Your task to perform on an android device: turn off priority inbox in the gmail app Image 0: 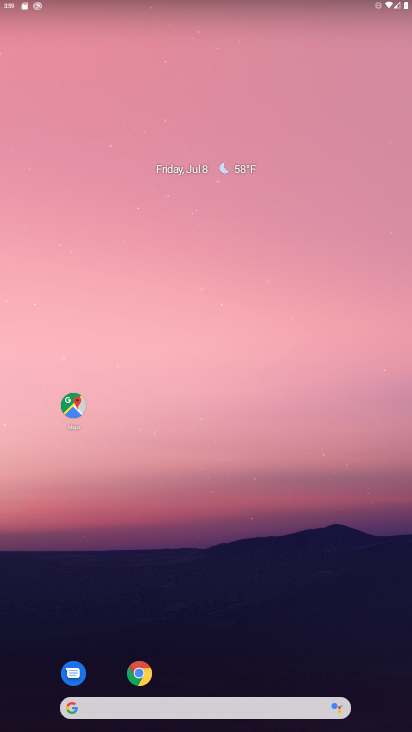
Step 0: drag from (155, 691) to (203, 429)
Your task to perform on an android device: turn off priority inbox in the gmail app Image 1: 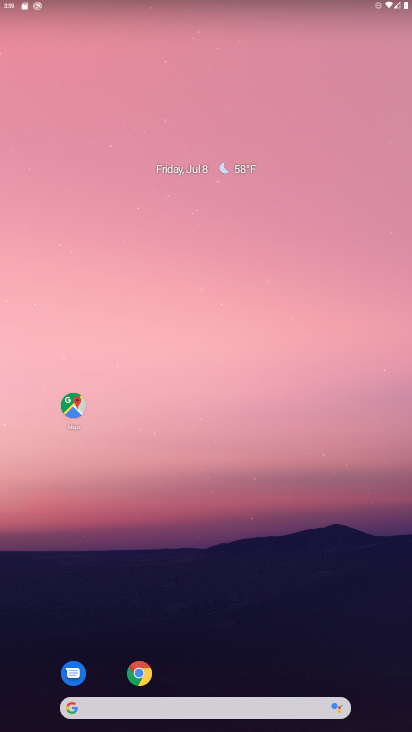
Step 1: drag from (196, 696) to (222, 248)
Your task to perform on an android device: turn off priority inbox in the gmail app Image 2: 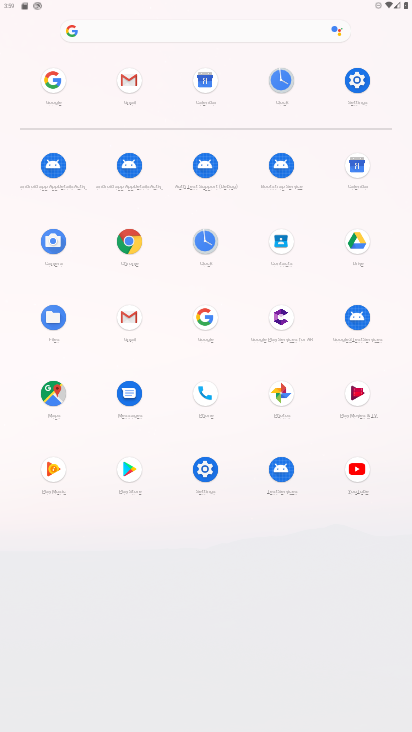
Step 2: click (129, 81)
Your task to perform on an android device: turn off priority inbox in the gmail app Image 3: 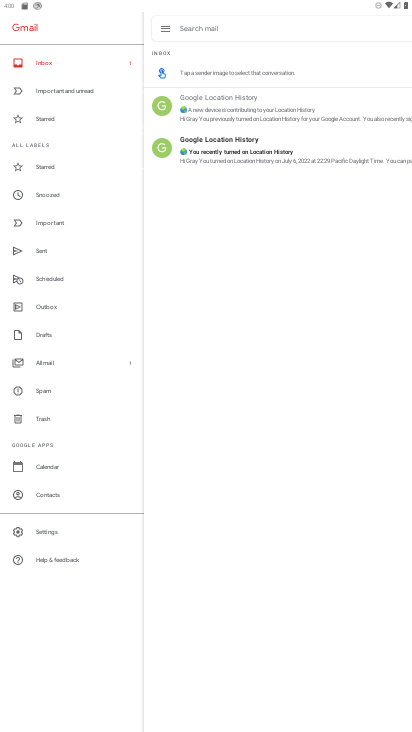
Step 3: click (52, 531)
Your task to perform on an android device: turn off priority inbox in the gmail app Image 4: 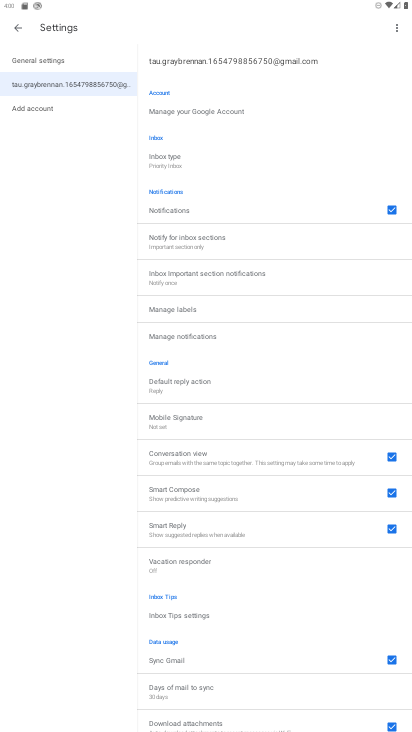
Step 4: click (161, 159)
Your task to perform on an android device: turn off priority inbox in the gmail app Image 5: 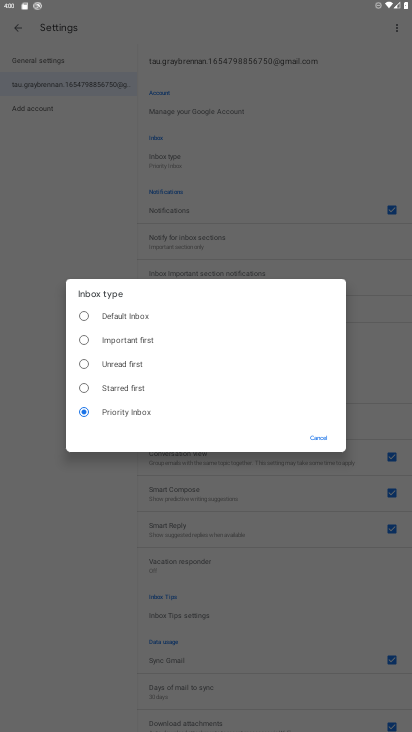
Step 5: click (118, 317)
Your task to perform on an android device: turn off priority inbox in the gmail app Image 6: 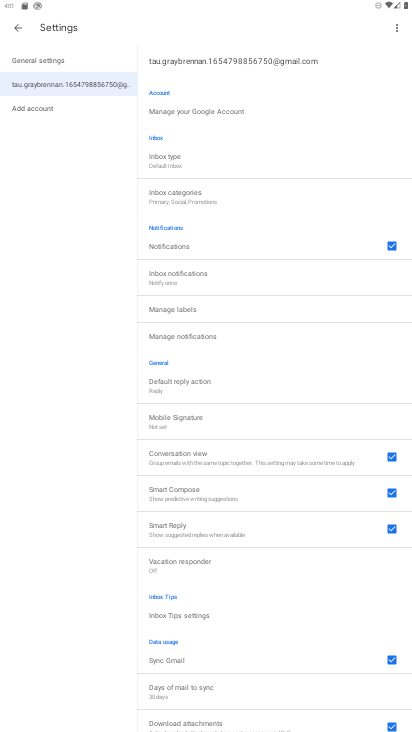
Step 6: task complete